Your task to perform on an android device: find photos in the google photos app Image 0: 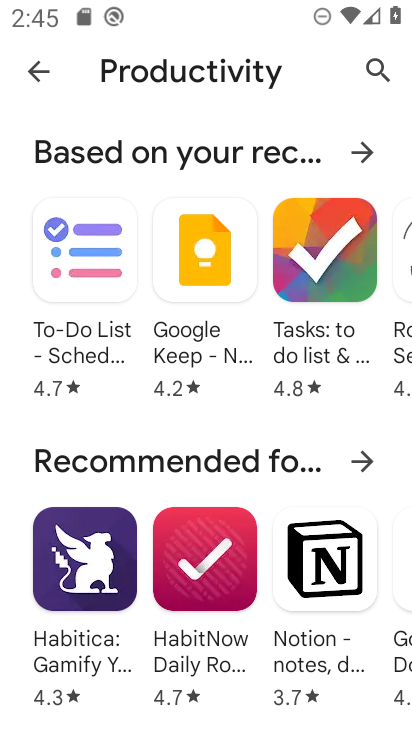
Step 0: press back button
Your task to perform on an android device: find photos in the google photos app Image 1: 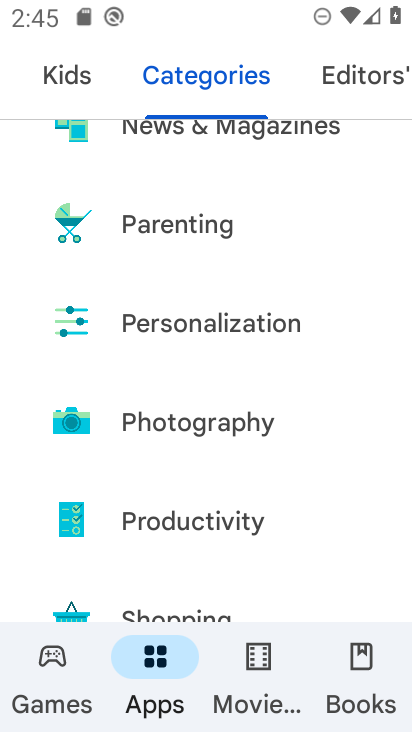
Step 1: press home button
Your task to perform on an android device: find photos in the google photos app Image 2: 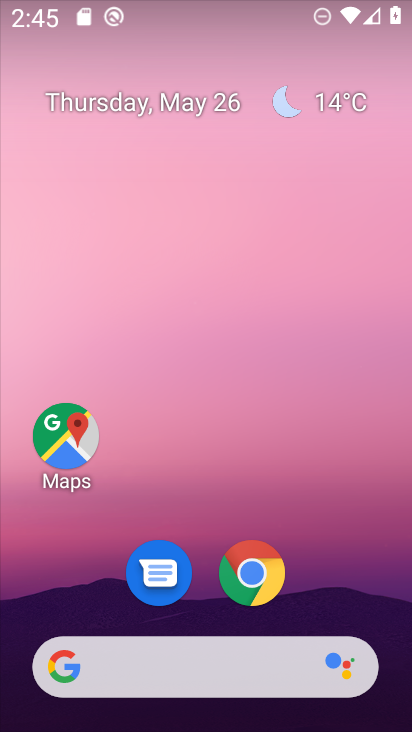
Step 2: drag from (336, 557) to (219, 27)
Your task to perform on an android device: find photos in the google photos app Image 3: 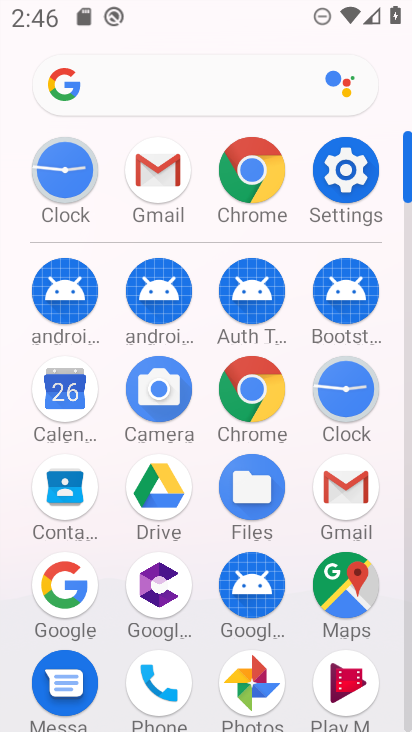
Step 3: drag from (19, 512) to (19, 270)
Your task to perform on an android device: find photos in the google photos app Image 4: 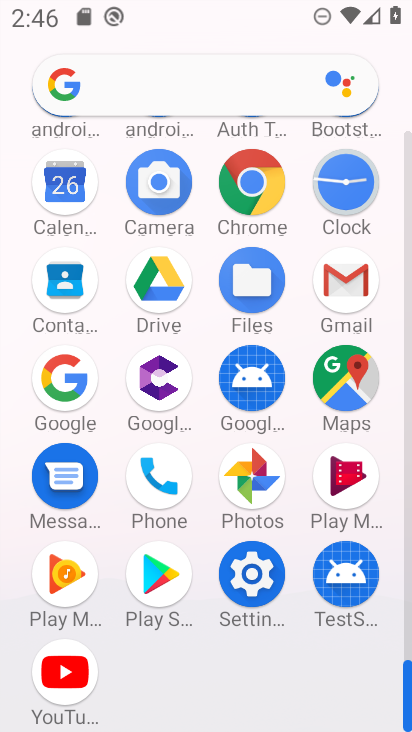
Step 4: click (250, 476)
Your task to perform on an android device: find photos in the google photos app Image 5: 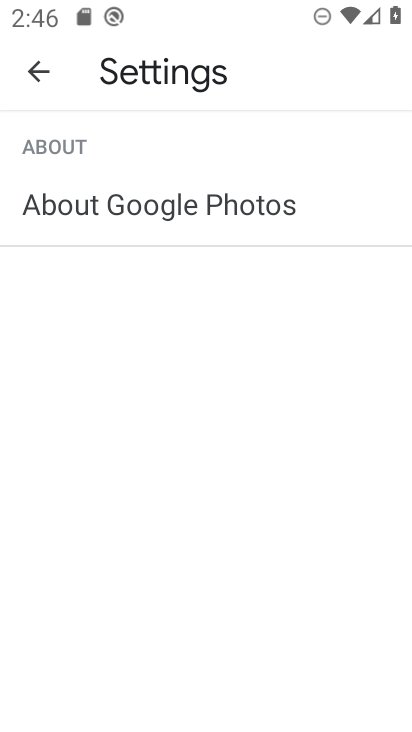
Step 5: click (39, 73)
Your task to perform on an android device: find photos in the google photos app Image 6: 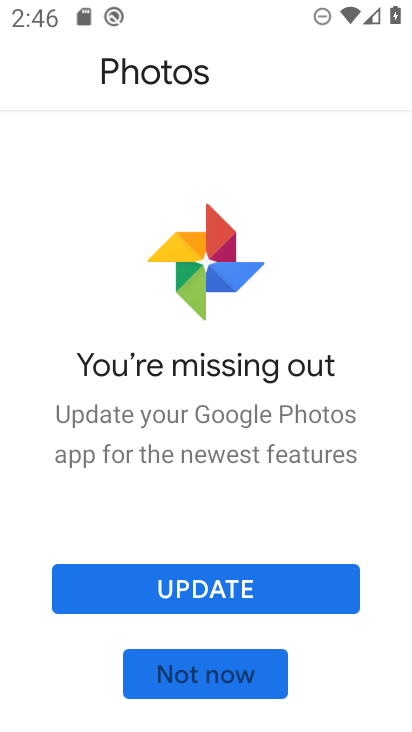
Step 6: click (228, 586)
Your task to perform on an android device: find photos in the google photos app Image 7: 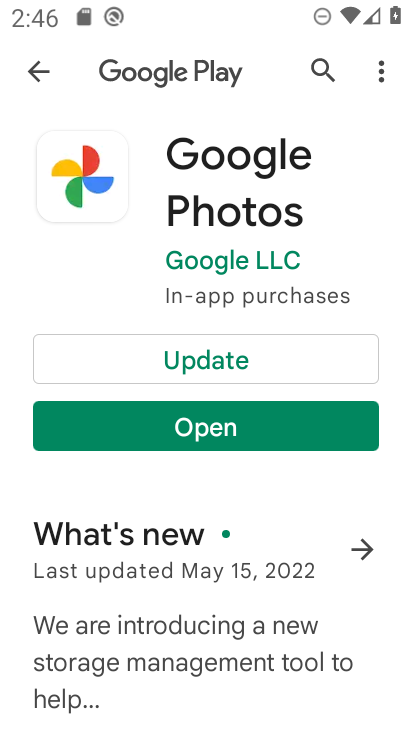
Step 7: click (240, 352)
Your task to perform on an android device: find photos in the google photos app Image 8: 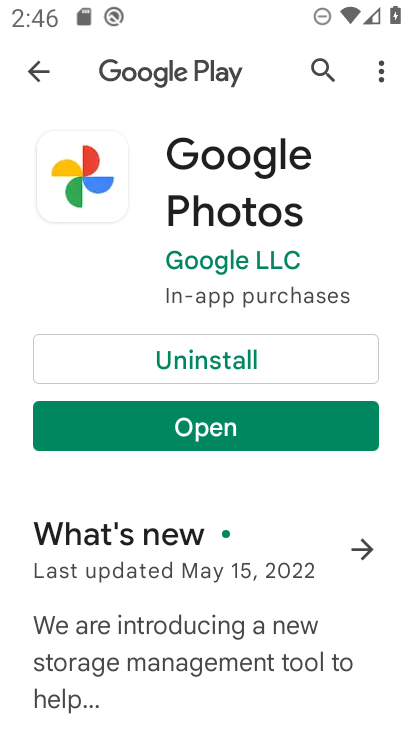
Step 8: click (214, 421)
Your task to perform on an android device: find photos in the google photos app Image 9: 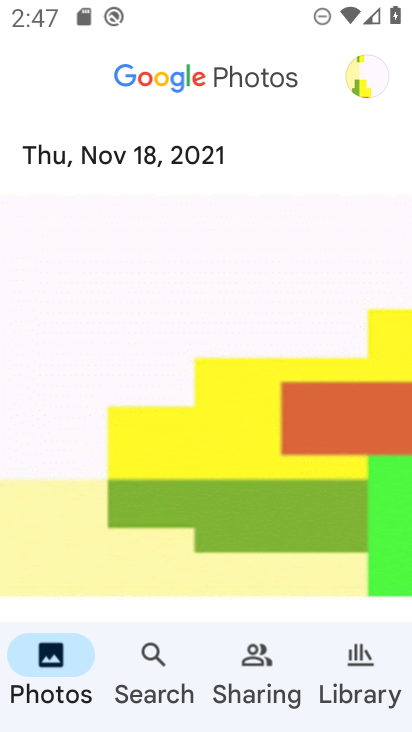
Step 9: task complete